Your task to perform on an android device: change the clock display to show seconds Image 0: 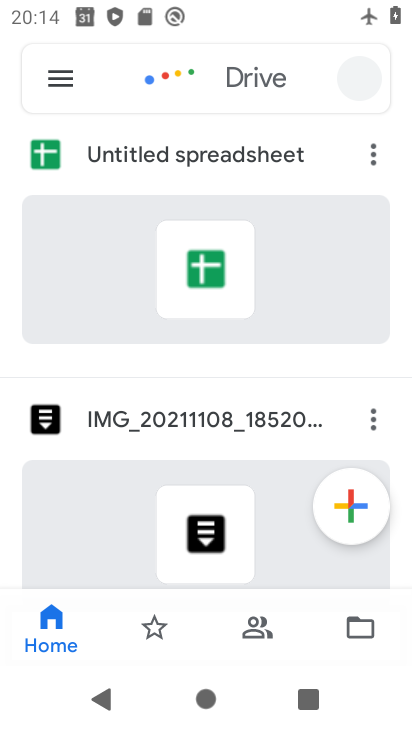
Step 0: press home button
Your task to perform on an android device: change the clock display to show seconds Image 1: 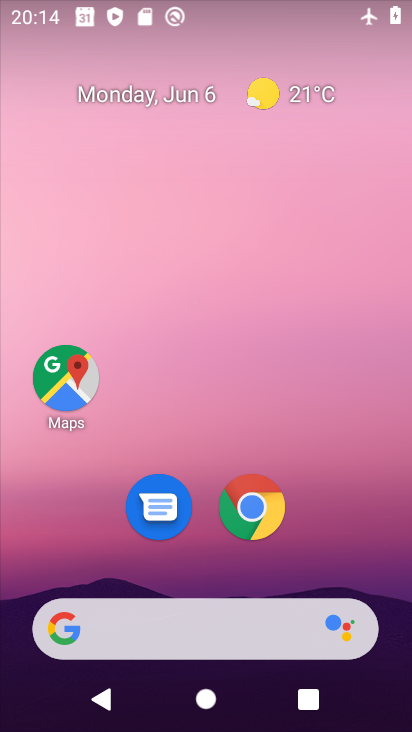
Step 1: drag from (237, 576) to (176, 174)
Your task to perform on an android device: change the clock display to show seconds Image 2: 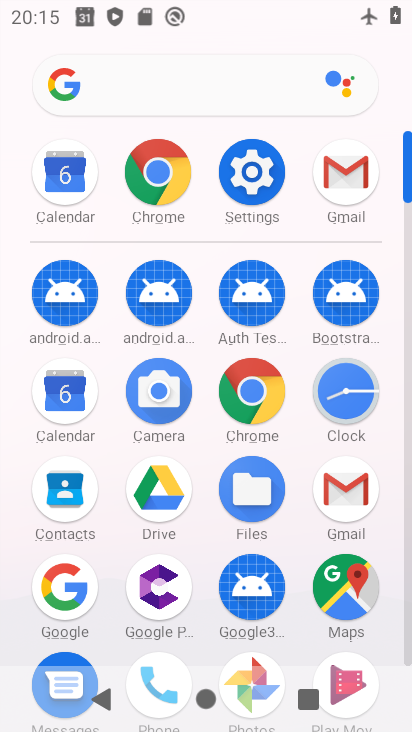
Step 2: click (350, 394)
Your task to perform on an android device: change the clock display to show seconds Image 3: 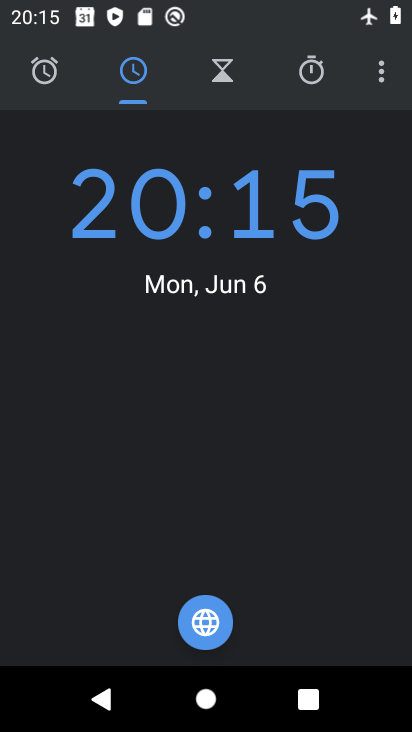
Step 3: click (385, 75)
Your task to perform on an android device: change the clock display to show seconds Image 4: 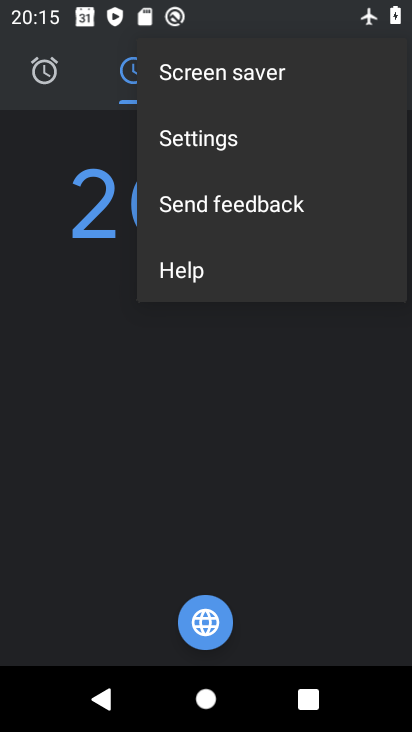
Step 4: click (225, 151)
Your task to perform on an android device: change the clock display to show seconds Image 5: 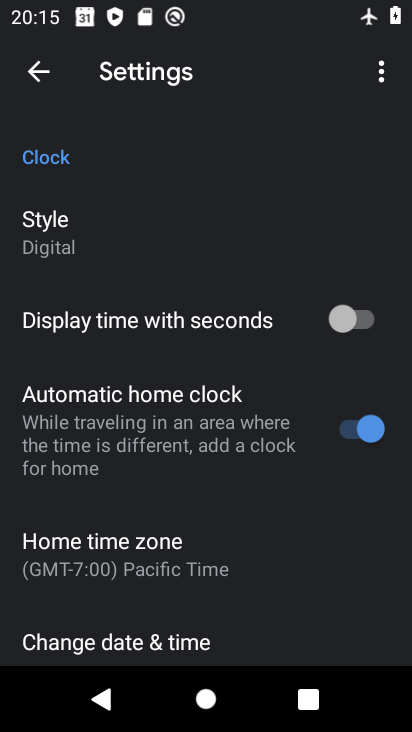
Step 5: click (372, 334)
Your task to perform on an android device: change the clock display to show seconds Image 6: 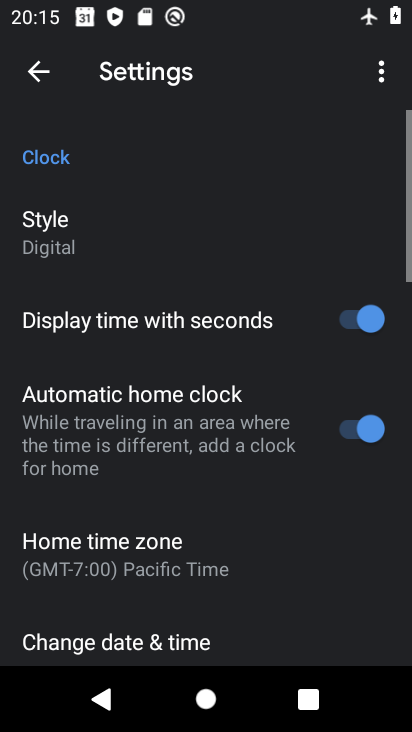
Step 6: task complete